Your task to perform on an android device: Go to accessibility settings Image 0: 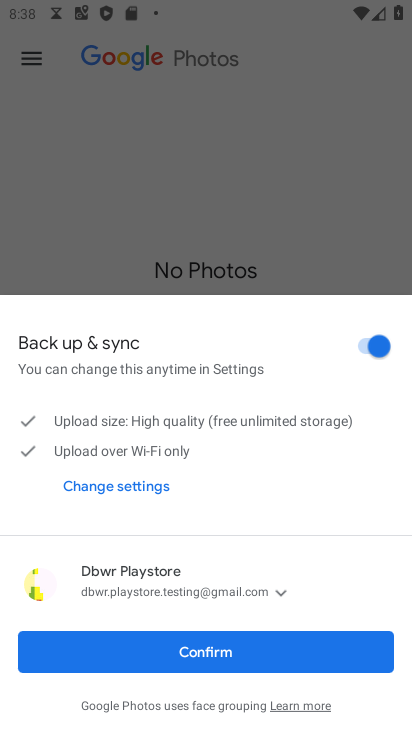
Step 0: press home button
Your task to perform on an android device: Go to accessibility settings Image 1: 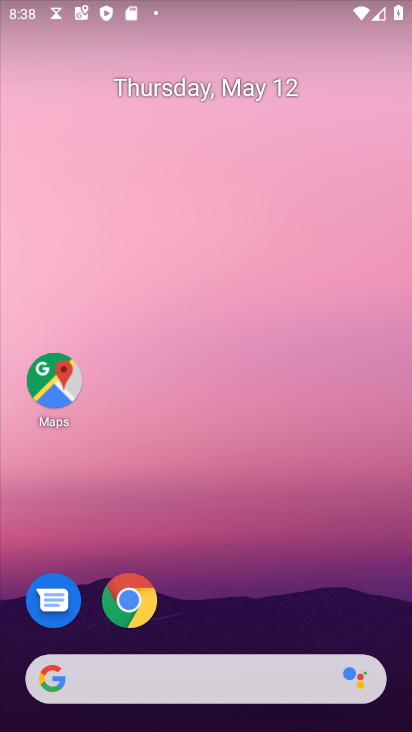
Step 1: drag from (237, 613) to (205, 134)
Your task to perform on an android device: Go to accessibility settings Image 2: 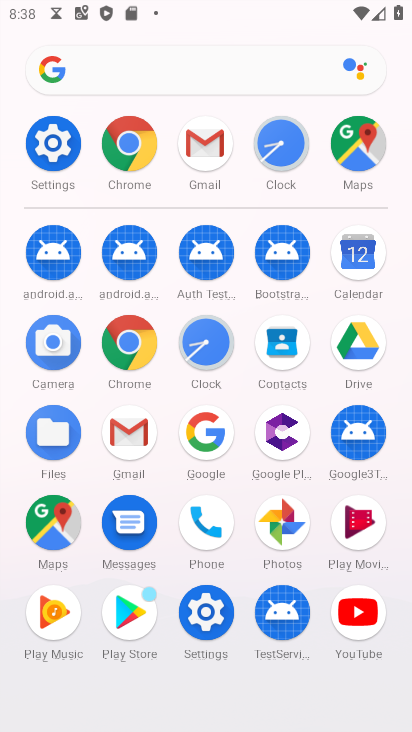
Step 2: click (209, 617)
Your task to perform on an android device: Go to accessibility settings Image 3: 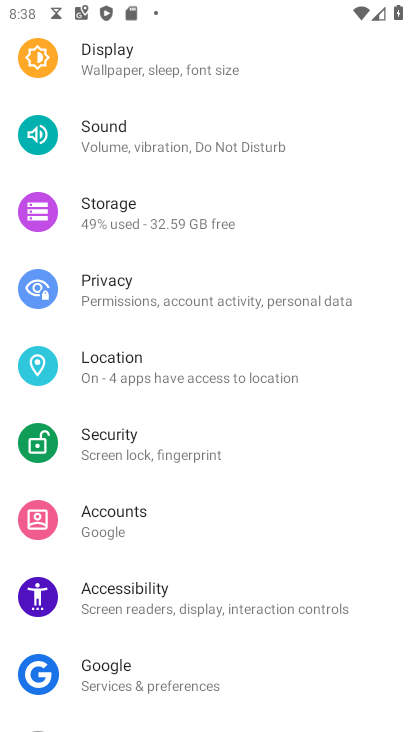
Step 3: click (196, 612)
Your task to perform on an android device: Go to accessibility settings Image 4: 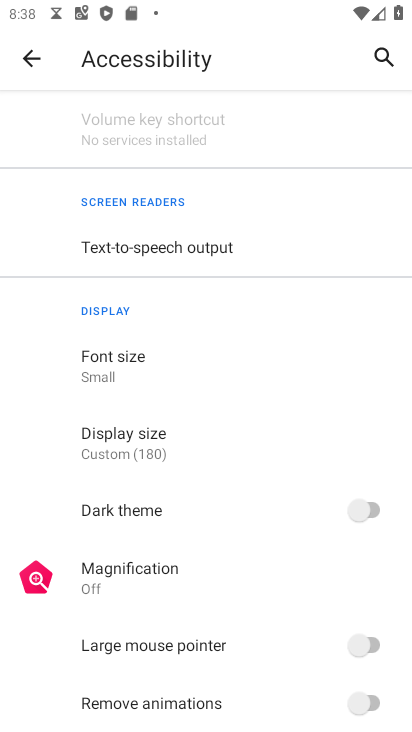
Step 4: task complete